Your task to perform on an android device: clear all cookies in the chrome app Image 0: 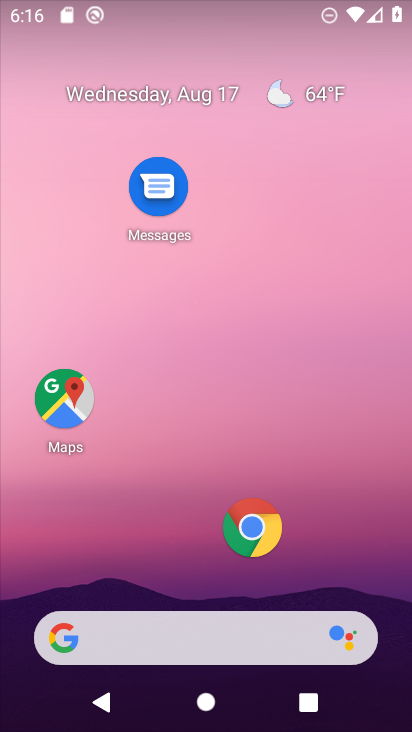
Step 0: click (245, 544)
Your task to perform on an android device: clear all cookies in the chrome app Image 1: 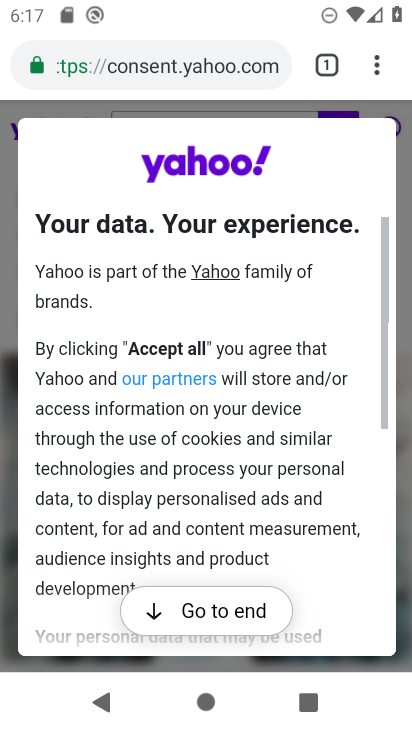
Step 1: click (369, 70)
Your task to perform on an android device: clear all cookies in the chrome app Image 2: 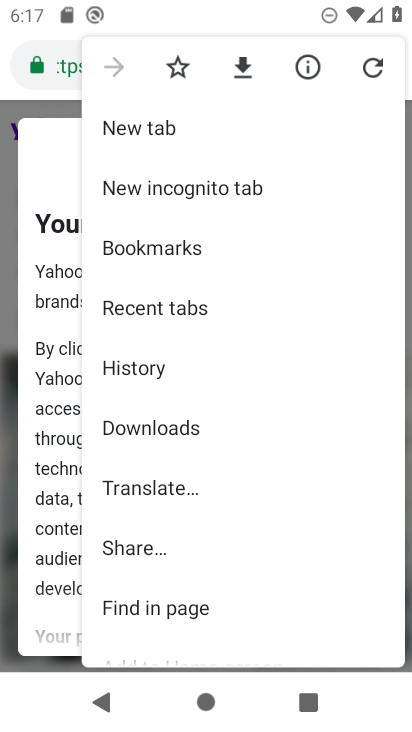
Step 2: click (134, 366)
Your task to perform on an android device: clear all cookies in the chrome app Image 3: 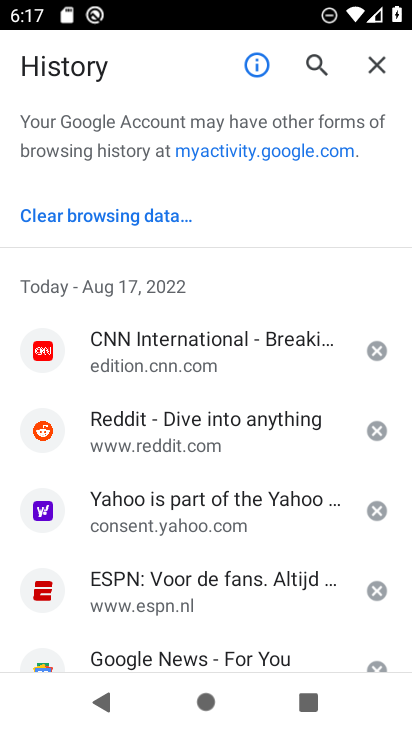
Step 3: click (32, 215)
Your task to perform on an android device: clear all cookies in the chrome app Image 4: 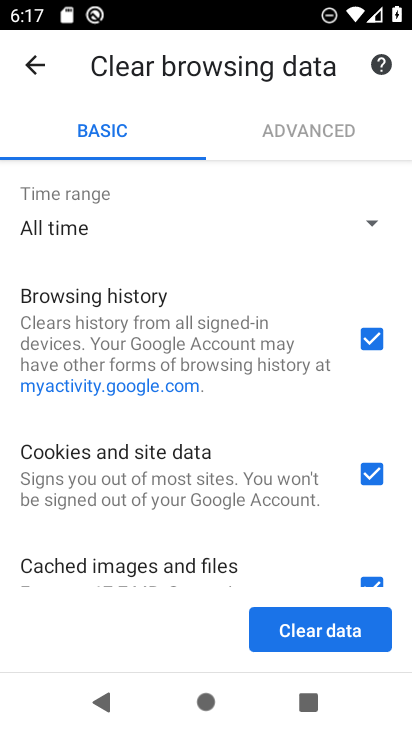
Step 4: click (288, 632)
Your task to perform on an android device: clear all cookies in the chrome app Image 5: 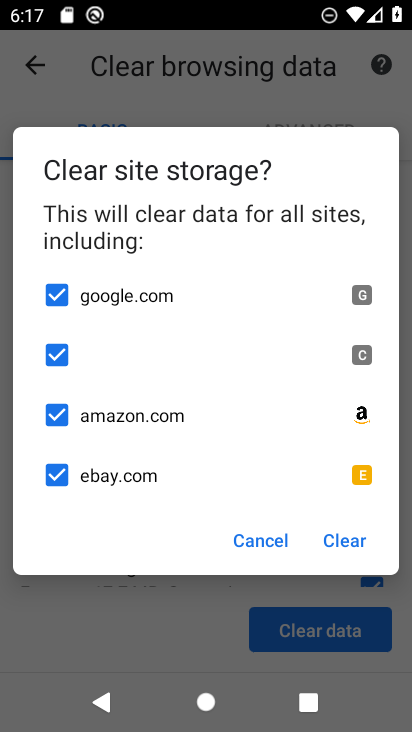
Step 5: click (342, 541)
Your task to perform on an android device: clear all cookies in the chrome app Image 6: 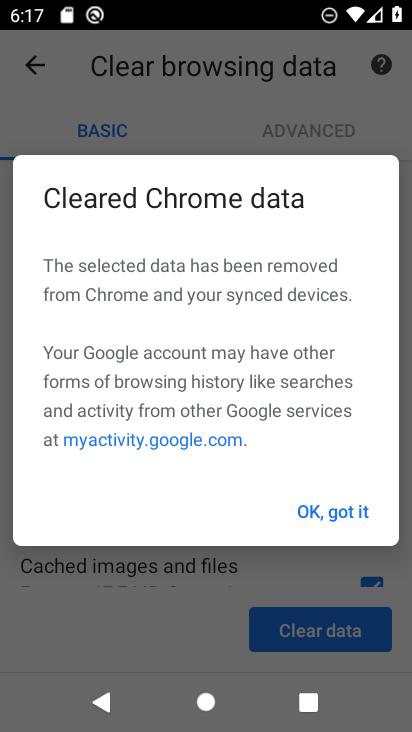
Step 6: click (323, 503)
Your task to perform on an android device: clear all cookies in the chrome app Image 7: 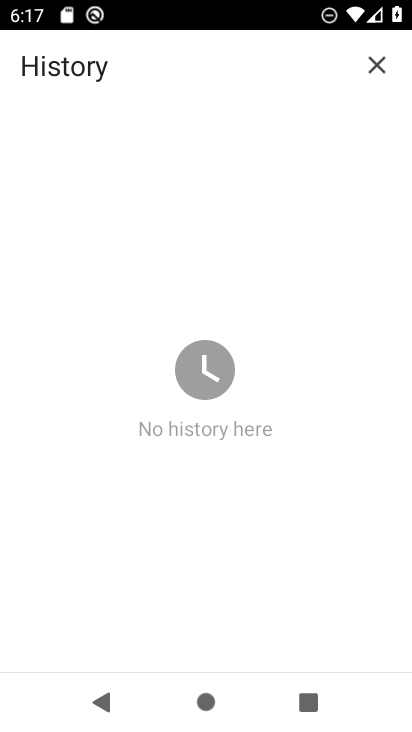
Step 7: task complete